Your task to perform on an android device: Find coffee shops on Maps Image 0: 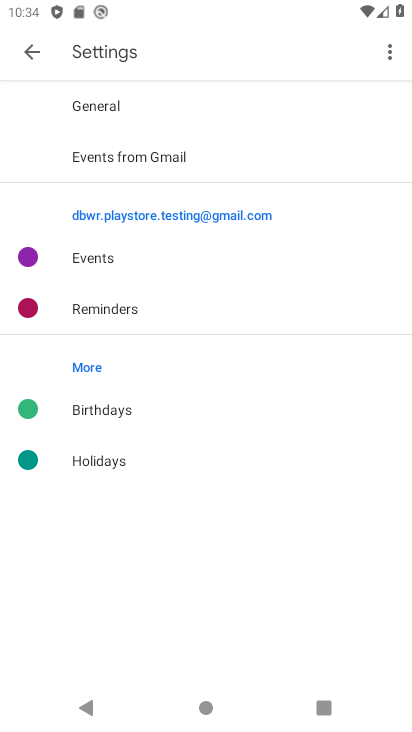
Step 0: press home button
Your task to perform on an android device: Find coffee shops on Maps Image 1: 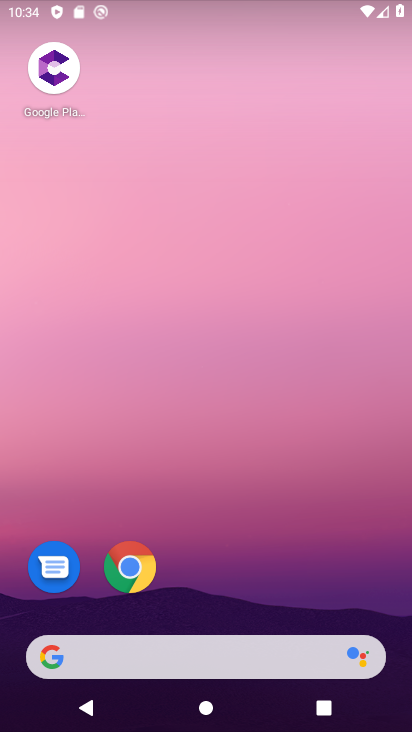
Step 1: drag from (355, 597) to (346, 90)
Your task to perform on an android device: Find coffee shops on Maps Image 2: 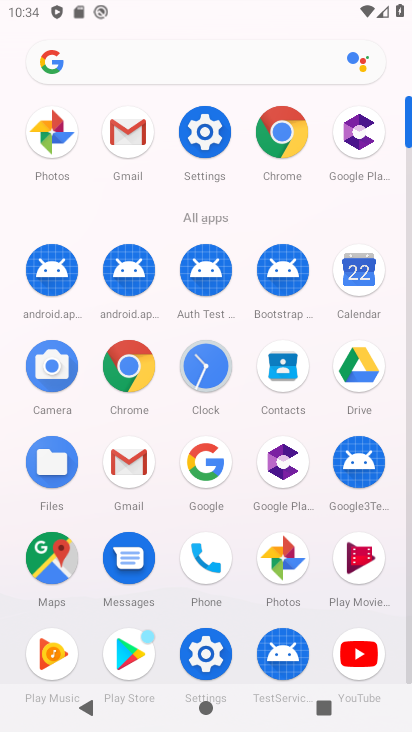
Step 2: click (52, 555)
Your task to perform on an android device: Find coffee shops on Maps Image 3: 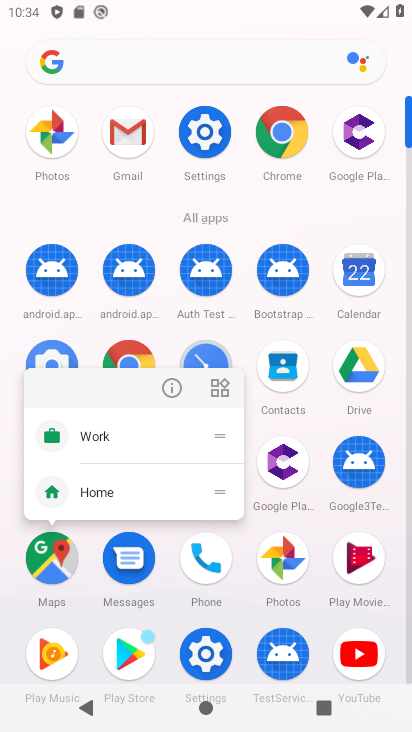
Step 3: click (42, 551)
Your task to perform on an android device: Find coffee shops on Maps Image 4: 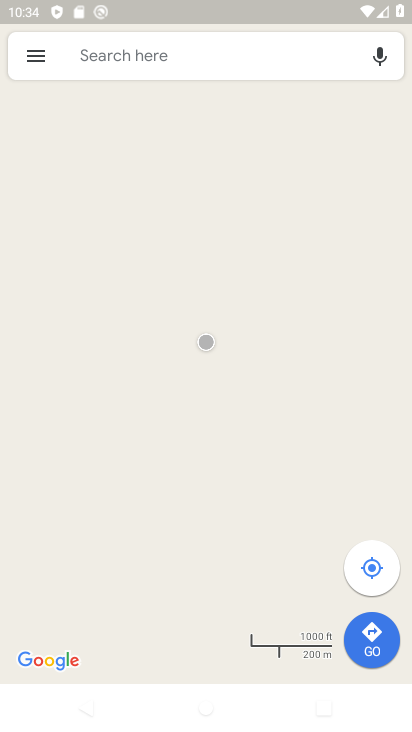
Step 4: click (188, 49)
Your task to perform on an android device: Find coffee shops on Maps Image 5: 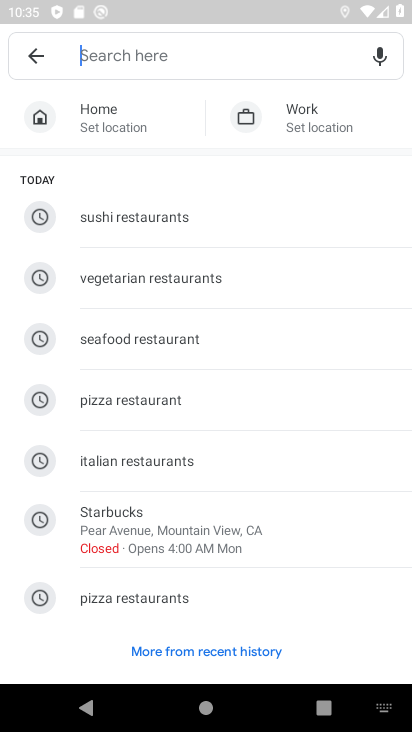
Step 5: type "coffee shops"
Your task to perform on an android device: Find coffee shops on Maps Image 6: 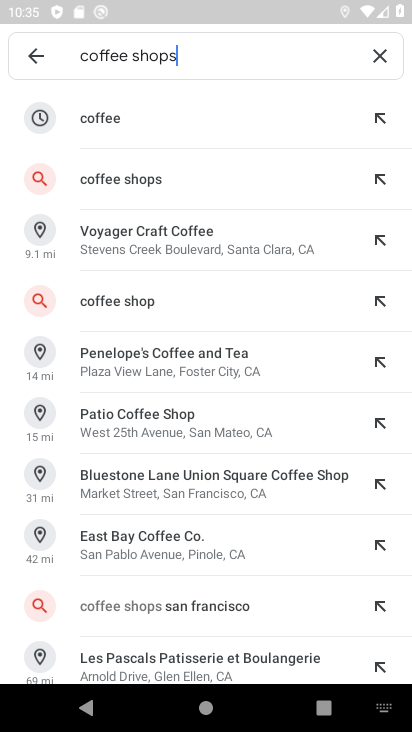
Step 6: click (147, 191)
Your task to perform on an android device: Find coffee shops on Maps Image 7: 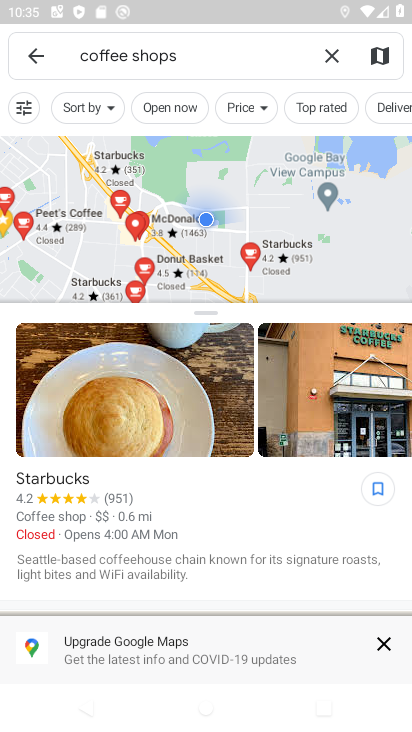
Step 7: task complete